Your task to perform on an android device: Add usb-a to the cart on amazon.com, then select checkout. Image 0: 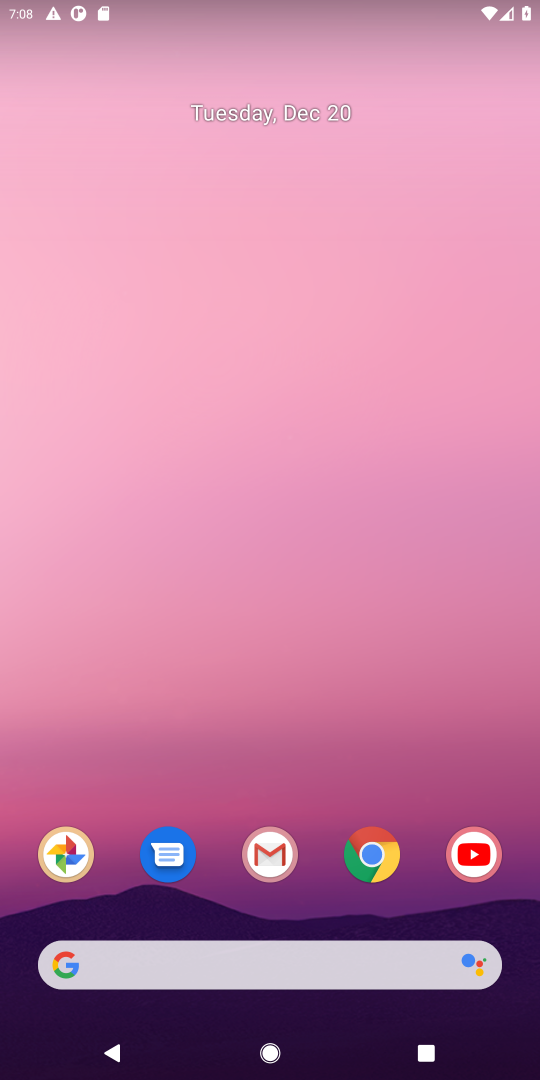
Step 0: click (387, 864)
Your task to perform on an android device: Add usb-a to the cart on amazon.com, then select checkout. Image 1: 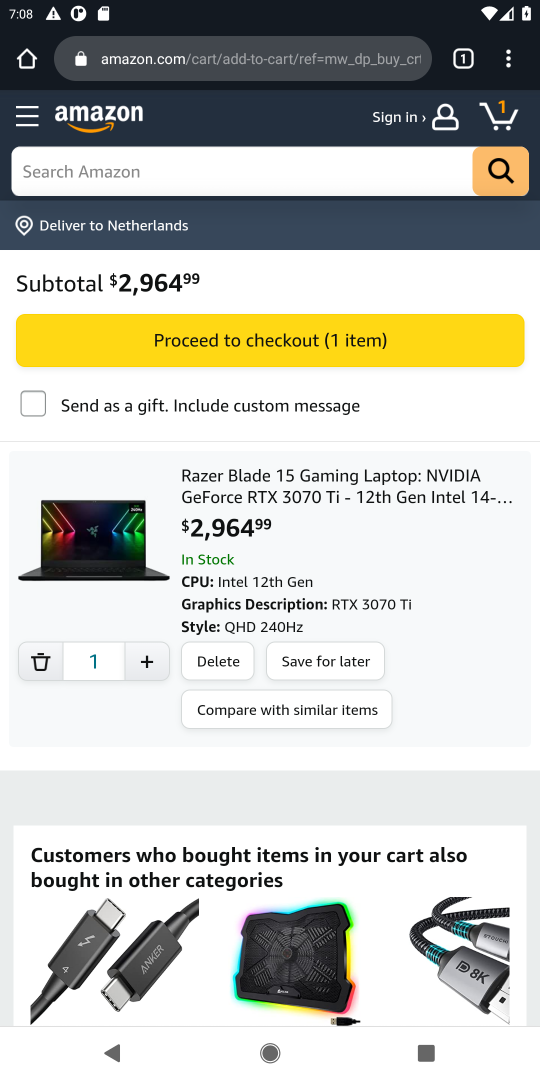
Step 1: click (155, 181)
Your task to perform on an android device: Add usb-a to the cart on amazon.com, then select checkout. Image 2: 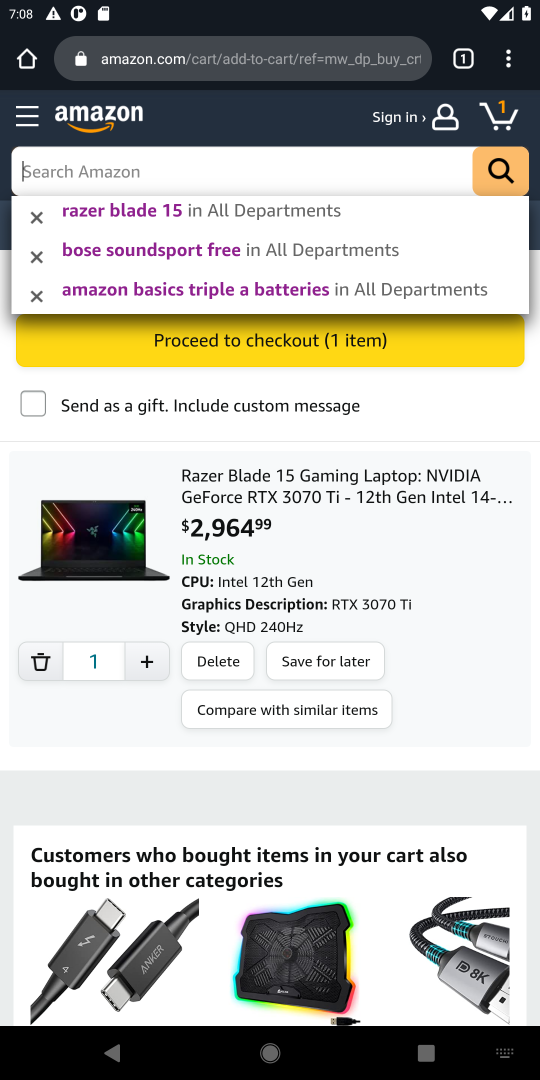
Step 2: type "usb-a"
Your task to perform on an android device: Add usb-a to the cart on amazon.com, then select checkout. Image 3: 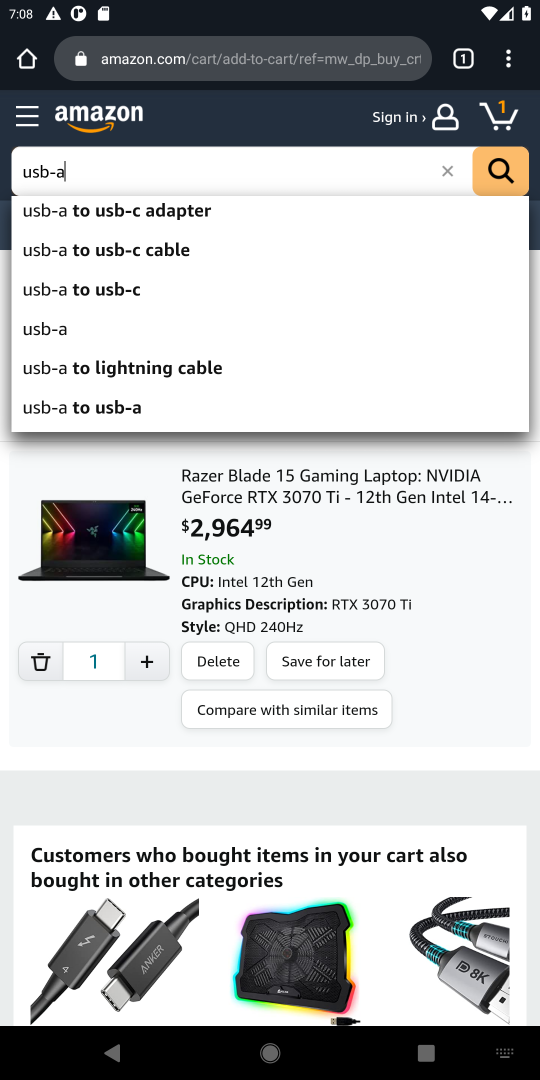
Step 3: click (51, 336)
Your task to perform on an android device: Add usb-a to the cart on amazon.com, then select checkout. Image 4: 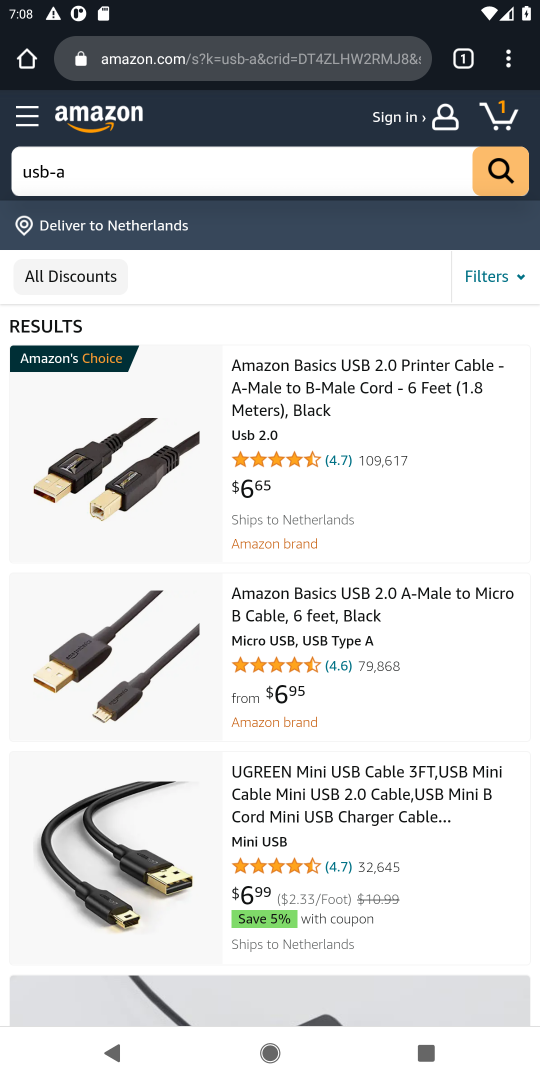
Step 4: click (281, 615)
Your task to perform on an android device: Add usb-a to the cart on amazon.com, then select checkout. Image 5: 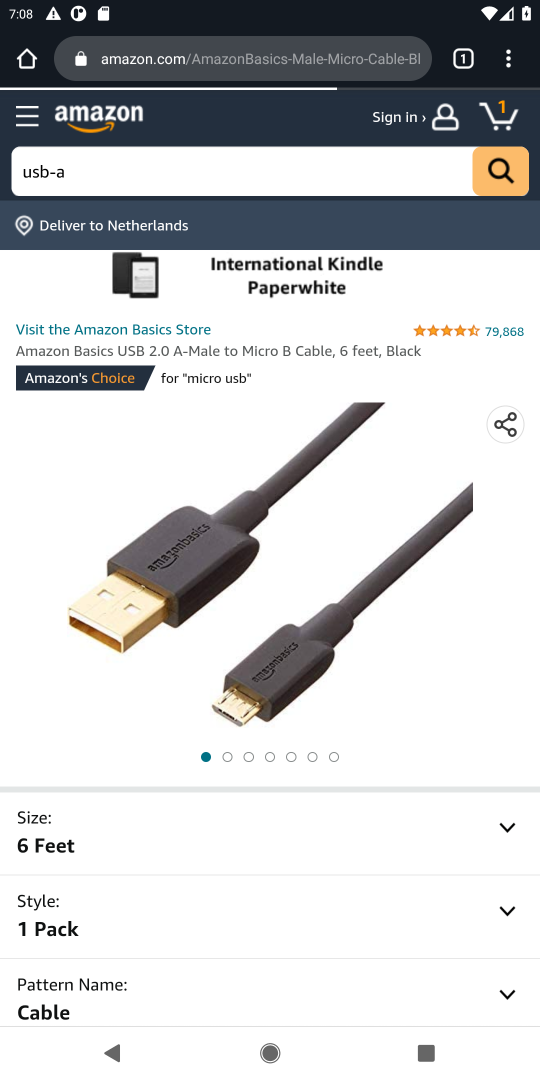
Step 5: drag from (221, 743) to (232, 308)
Your task to perform on an android device: Add usb-a to the cart on amazon.com, then select checkout. Image 6: 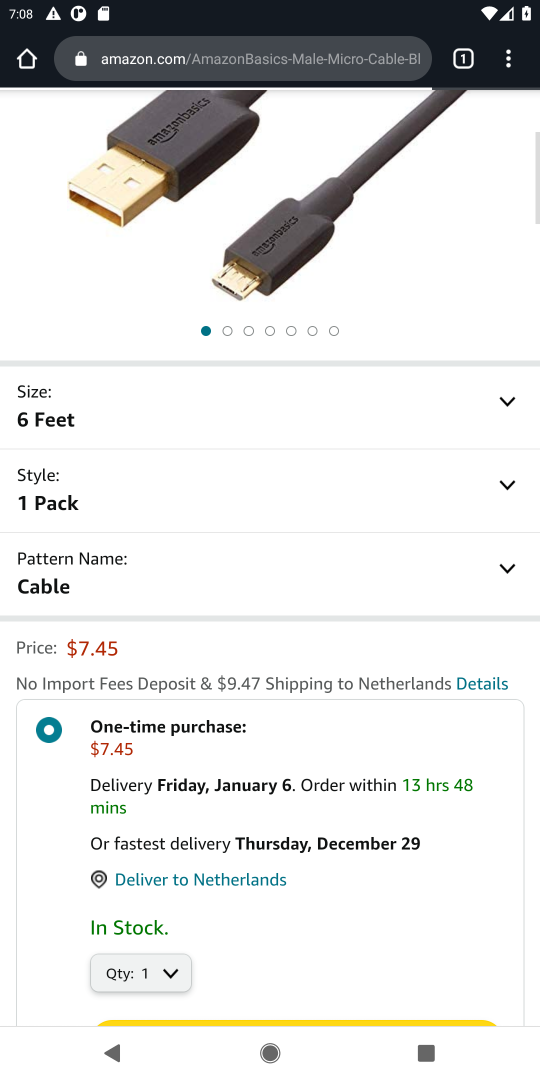
Step 6: drag from (204, 712) to (226, 374)
Your task to perform on an android device: Add usb-a to the cart on amazon.com, then select checkout. Image 7: 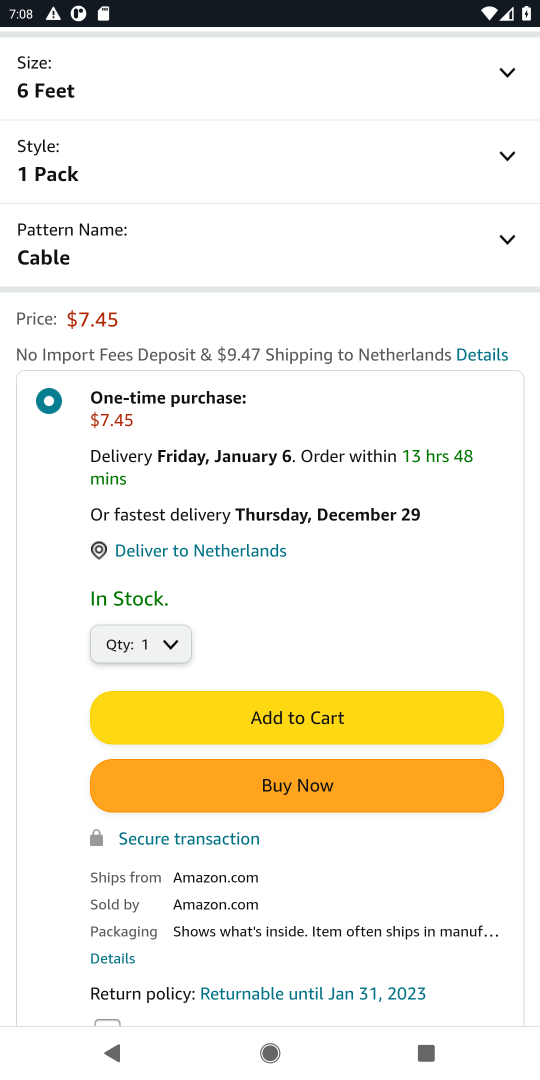
Step 7: click (256, 720)
Your task to perform on an android device: Add usb-a to the cart on amazon.com, then select checkout. Image 8: 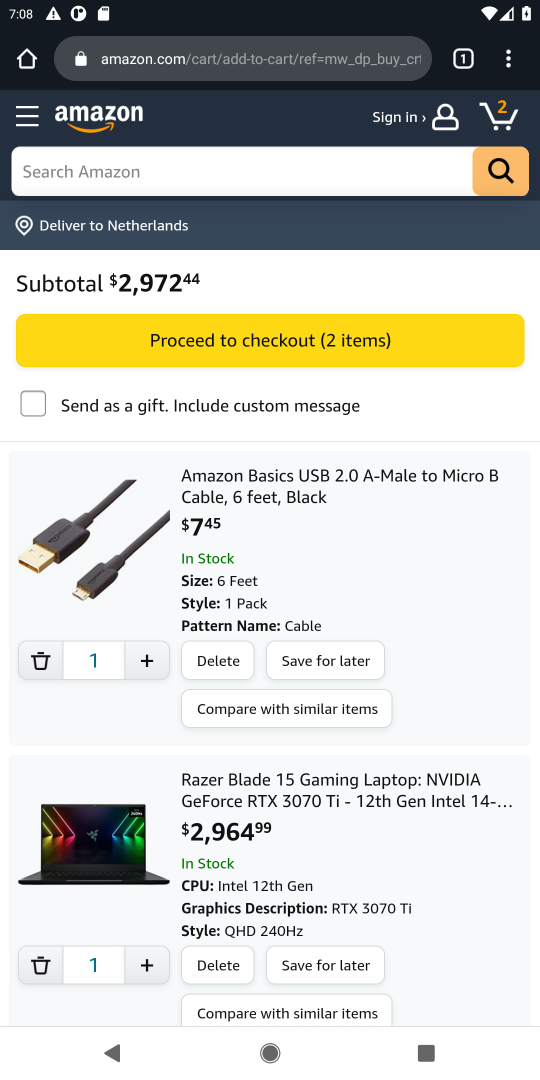
Step 8: click (268, 340)
Your task to perform on an android device: Add usb-a to the cart on amazon.com, then select checkout. Image 9: 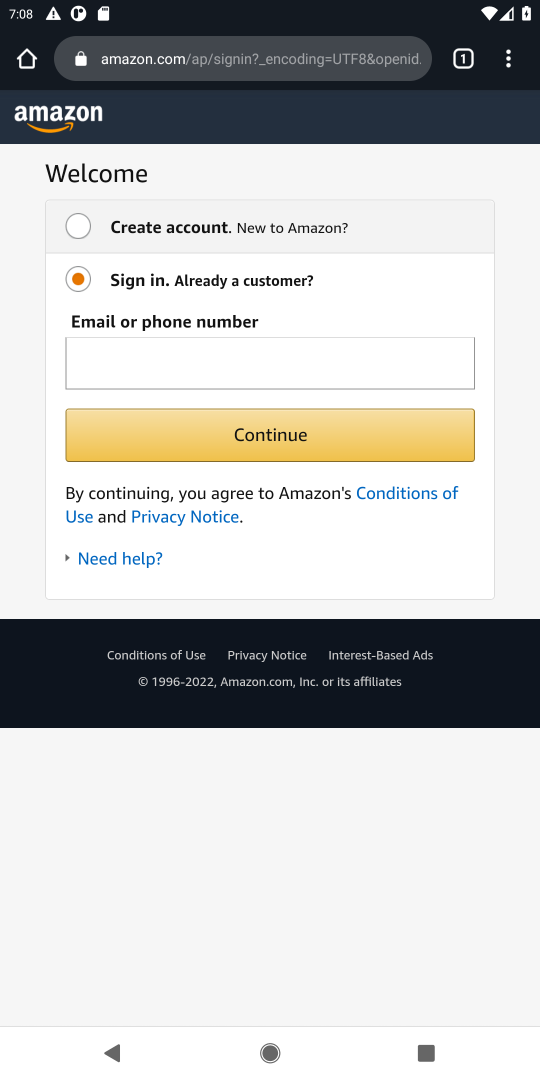
Step 9: task complete